Your task to perform on an android device: Play the last video I watched on Youtube Image 0: 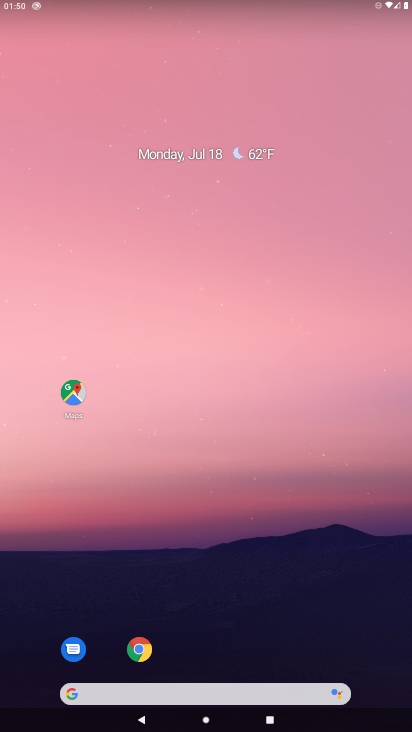
Step 0: drag from (220, 374) to (326, 101)
Your task to perform on an android device: Play the last video I watched on Youtube Image 1: 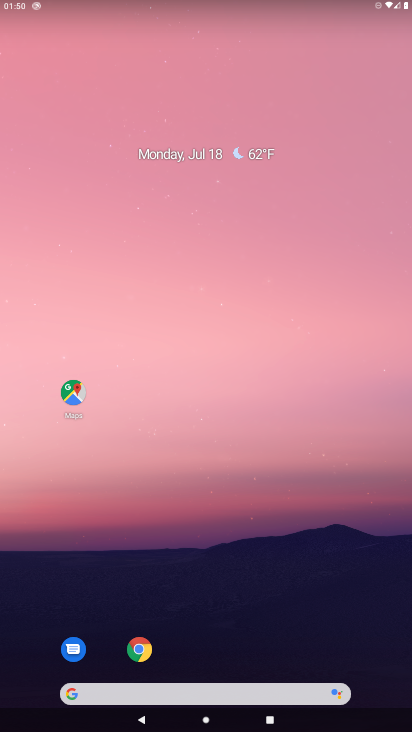
Step 1: drag from (17, 703) to (177, 231)
Your task to perform on an android device: Play the last video I watched on Youtube Image 2: 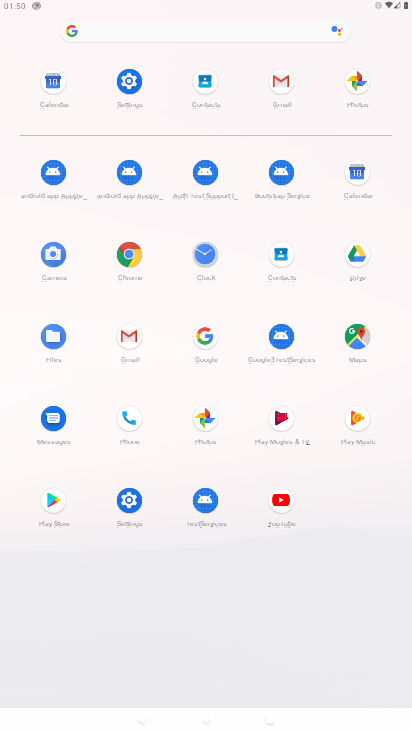
Step 2: click (281, 504)
Your task to perform on an android device: Play the last video I watched on Youtube Image 3: 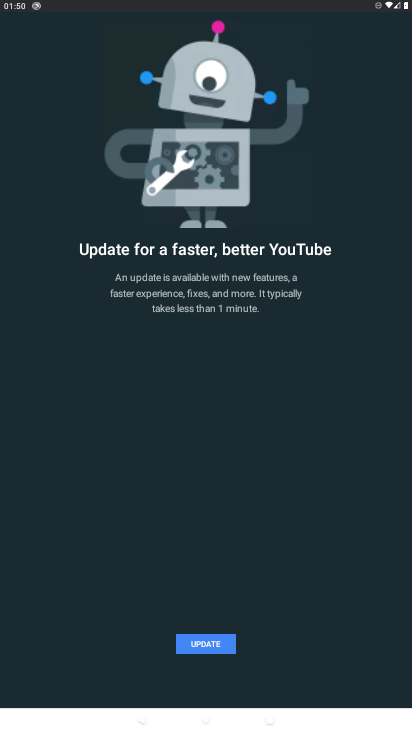
Step 3: task complete